Your task to perform on an android device: What's the weather going to be this weekend? Image 0: 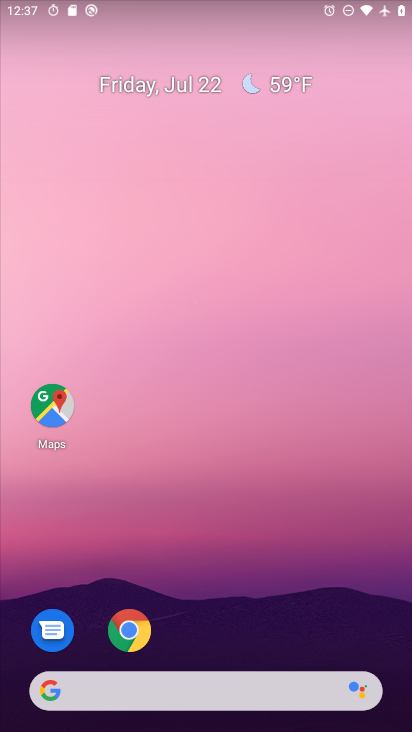
Step 0: press home button
Your task to perform on an android device: What's the weather going to be this weekend? Image 1: 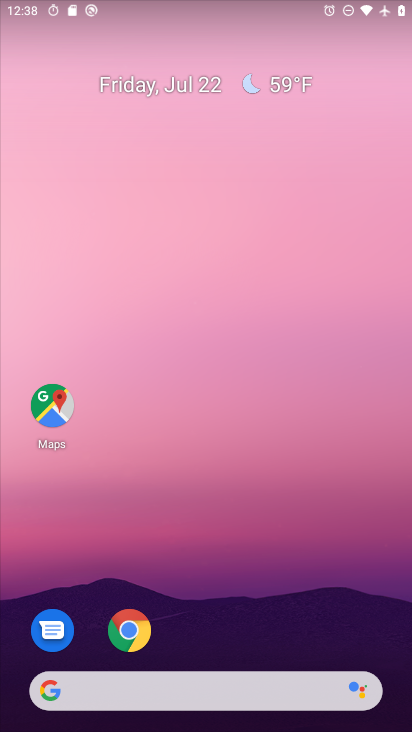
Step 1: drag from (213, 645) to (111, 198)
Your task to perform on an android device: What's the weather going to be this weekend? Image 2: 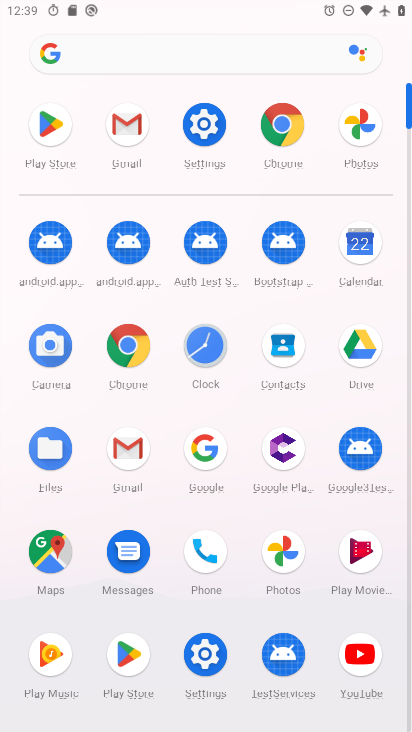
Step 2: click (209, 428)
Your task to perform on an android device: What's the weather going to be this weekend? Image 3: 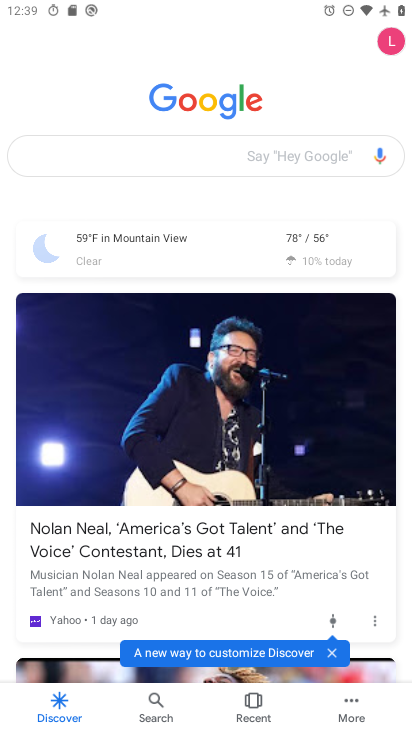
Step 3: click (84, 145)
Your task to perform on an android device: What's the weather going to be this weekend? Image 4: 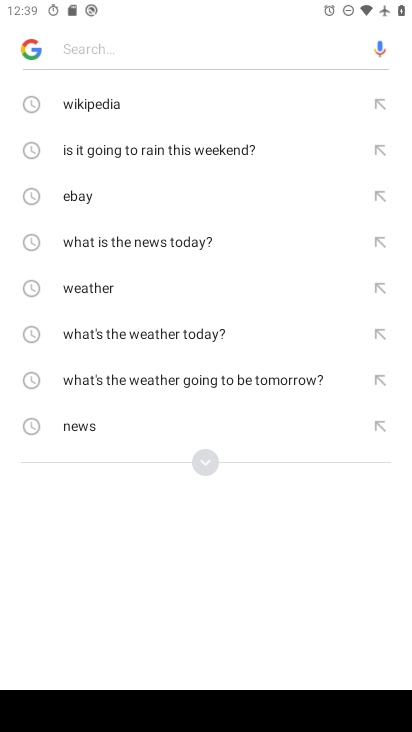
Step 4: type "weather going to be this weekend?"
Your task to perform on an android device: What's the weather going to be this weekend? Image 5: 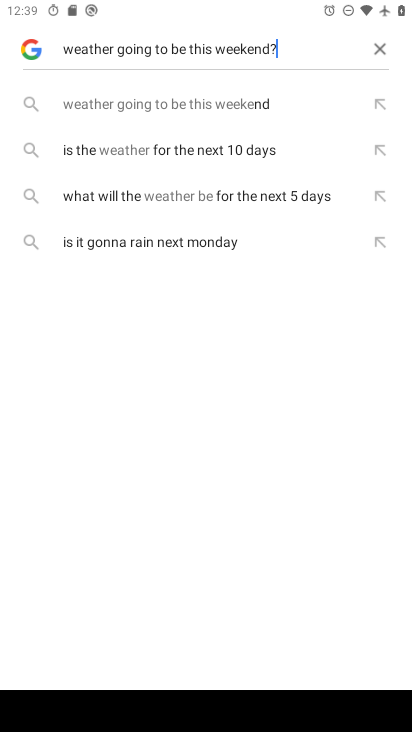
Step 5: press enter
Your task to perform on an android device: What's the weather going to be this weekend? Image 6: 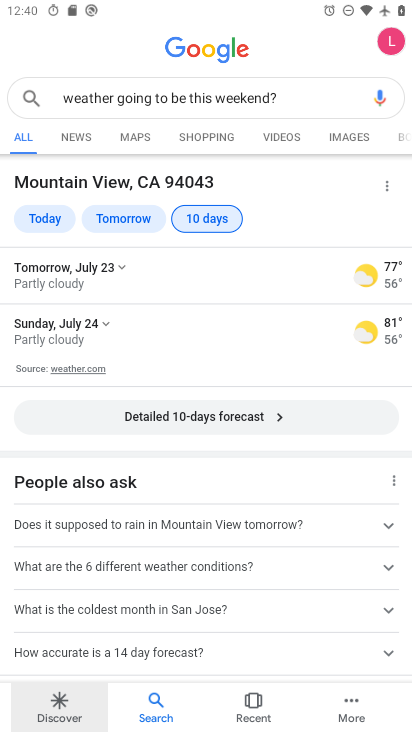
Step 6: task complete